Your task to perform on an android device: turn off location history Image 0: 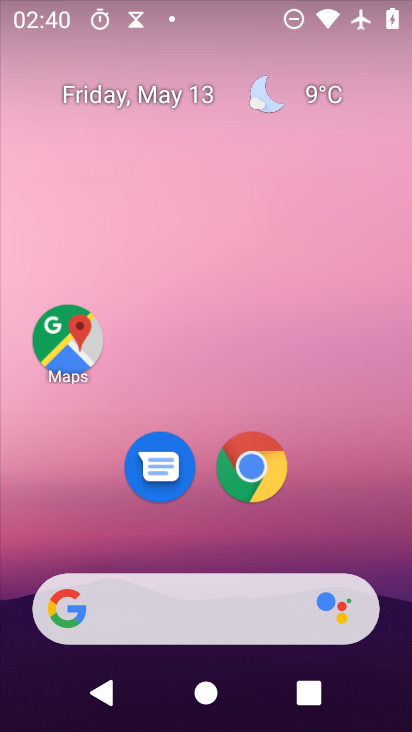
Step 0: press home button
Your task to perform on an android device: turn off location history Image 1: 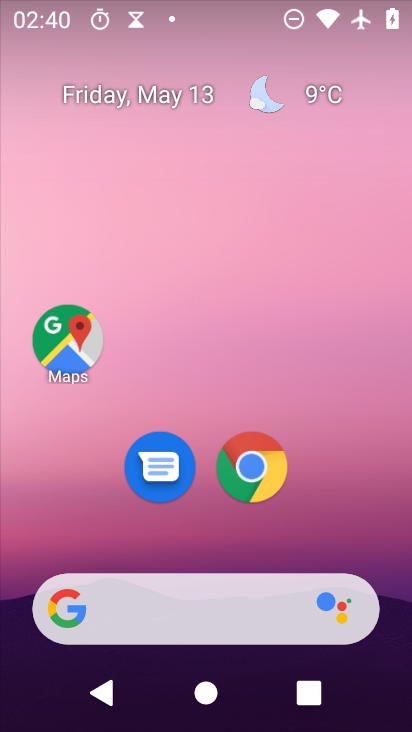
Step 1: drag from (266, 543) to (180, 21)
Your task to perform on an android device: turn off location history Image 2: 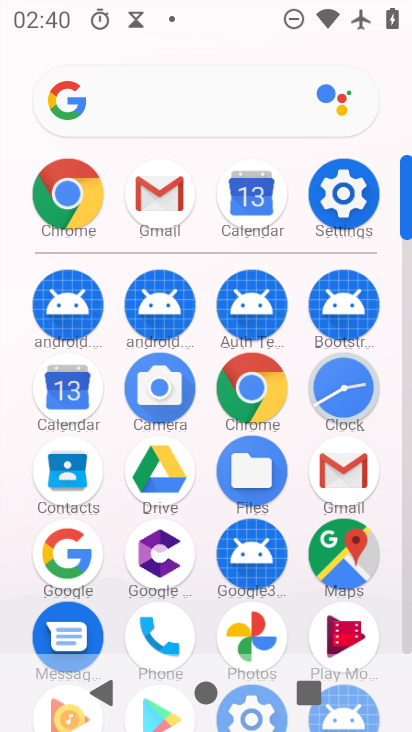
Step 2: click (343, 202)
Your task to perform on an android device: turn off location history Image 3: 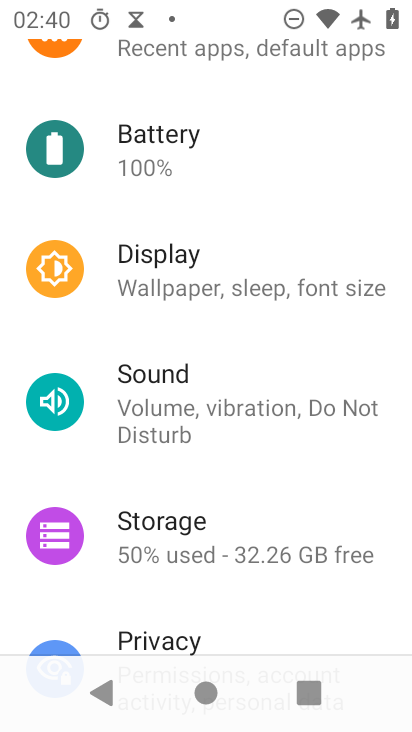
Step 3: click (243, 178)
Your task to perform on an android device: turn off location history Image 4: 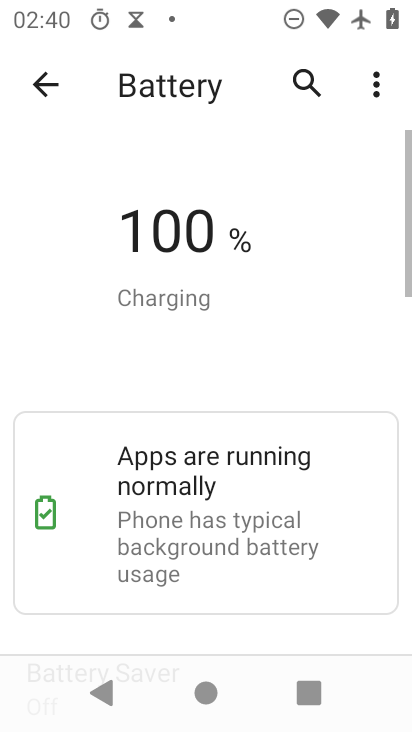
Step 4: drag from (205, 573) to (205, 235)
Your task to perform on an android device: turn off location history Image 5: 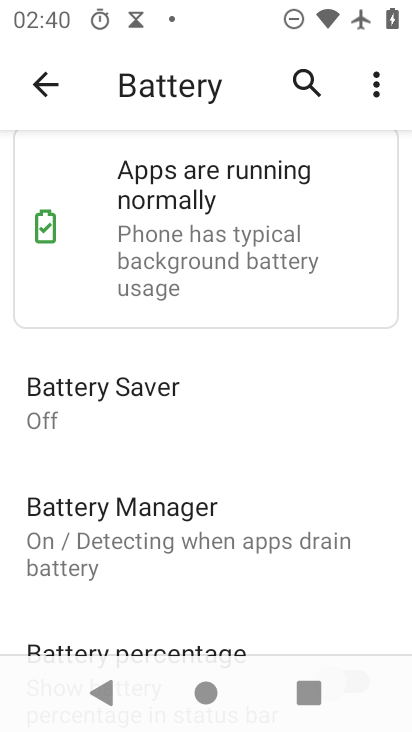
Step 5: click (37, 86)
Your task to perform on an android device: turn off location history Image 6: 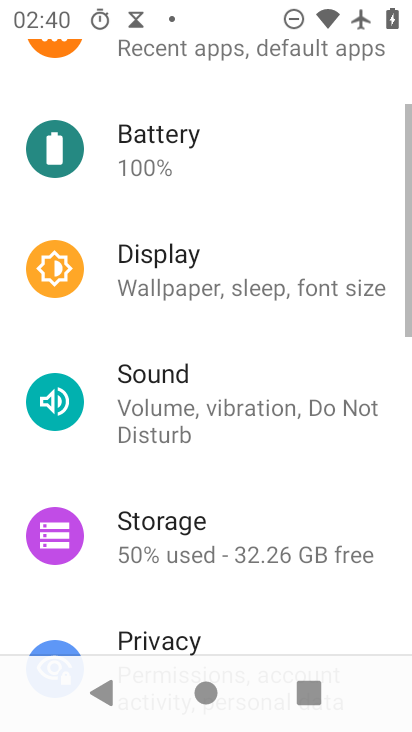
Step 6: drag from (215, 505) to (199, 180)
Your task to perform on an android device: turn off location history Image 7: 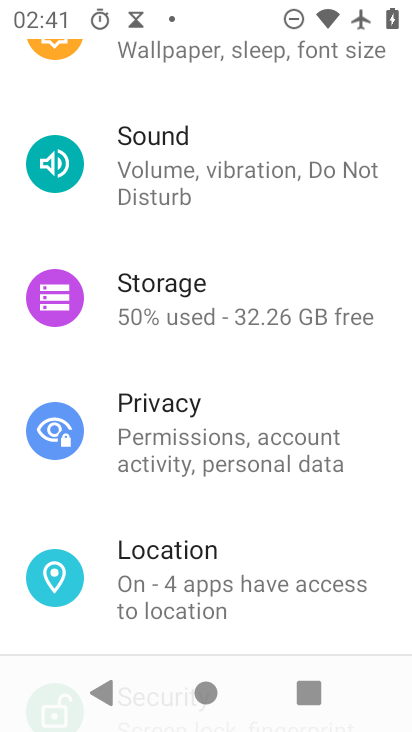
Step 7: click (237, 572)
Your task to perform on an android device: turn off location history Image 8: 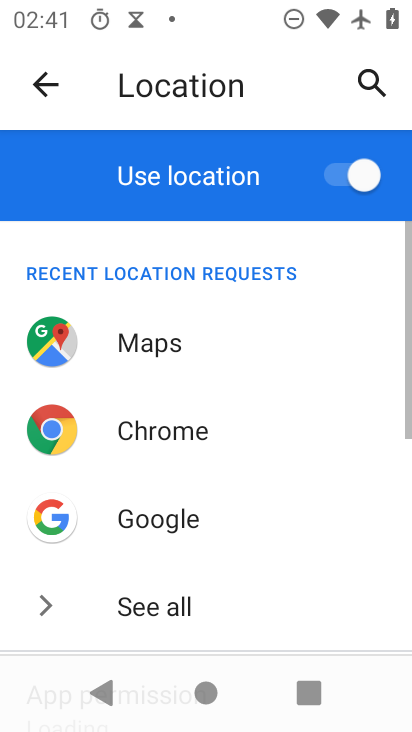
Step 8: drag from (259, 547) to (204, 172)
Your task to perform on an android device: turn off location history Image 9: 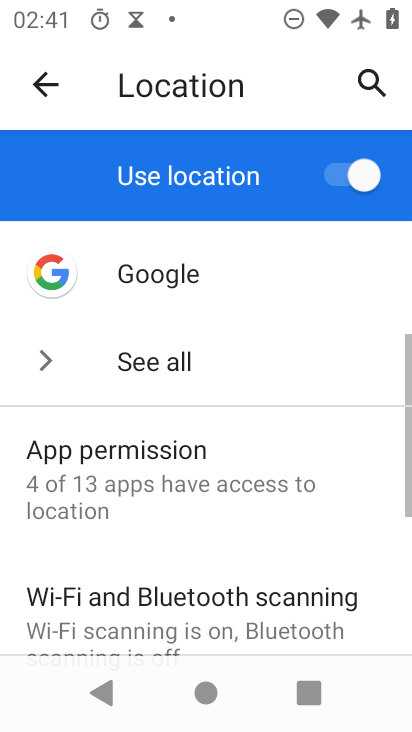
Step 9: drag from (237, 540) to (220, 228)
Your task to perform on an android device: turn off location history Image 10: 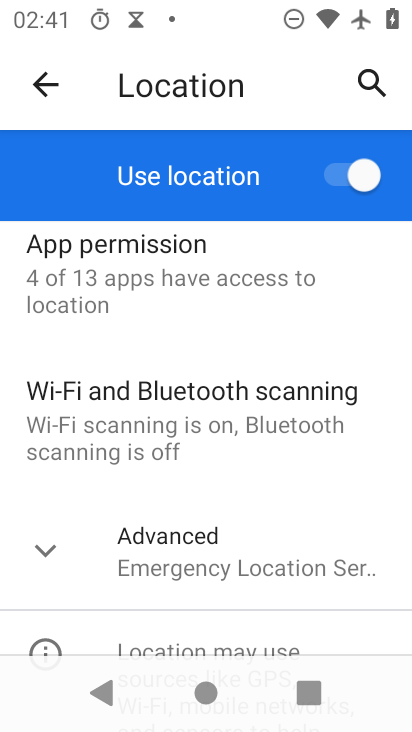
Step 10: drag from (216, 588) to (207, 280)
Your task to perform on an android device: turn off location history Image 11: 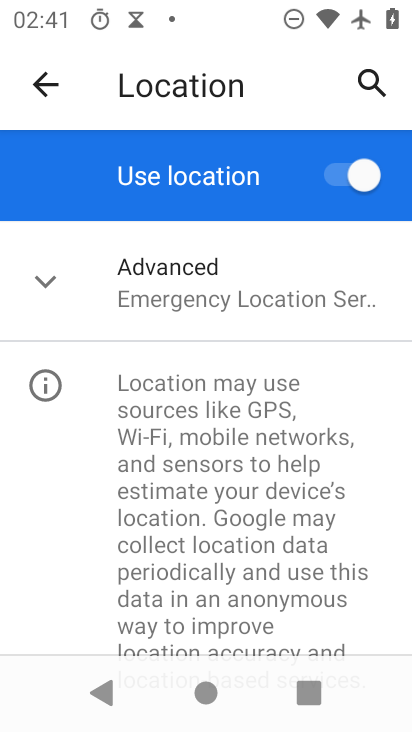
Step 11: drag from (219, 606) to (210, 331)
Your task to perform on an android device: turn off location history Image 12: 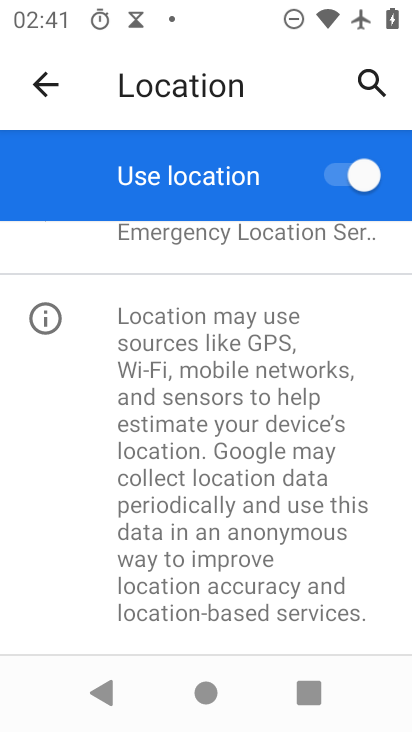
Step 12: drag from (177, 378) to (183, 591)
Your task to perform on an android device: turn off location history Image 13: 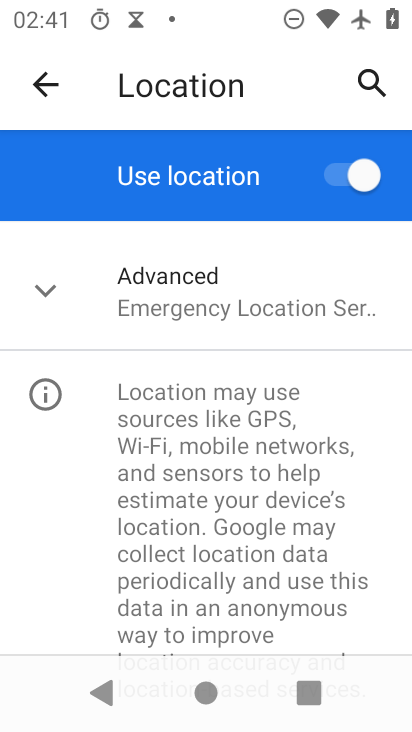
Step 13: click (173, 326)
Your task to perform on an android device: turn off location history Image 14: 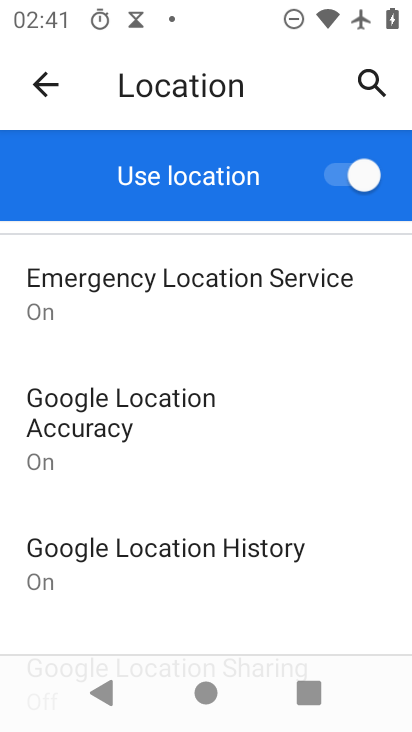
Step 14: click (227, 554)
Your task to perform on an android device: turn off location history Image 15: 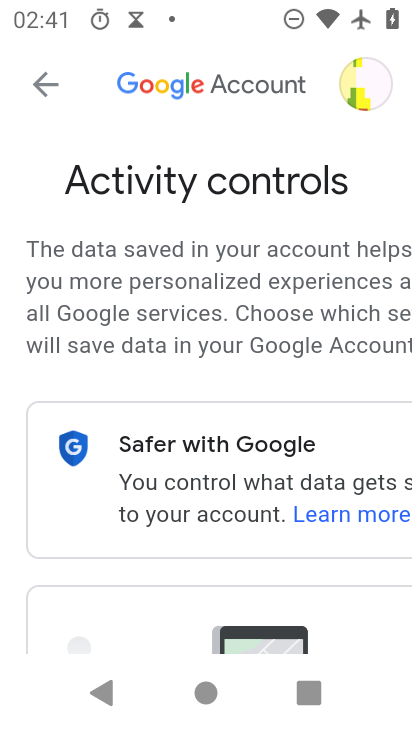
Step 15: drag from (174, 598) to (174, 149)
Your task to perform on an android device: turn off location history Image 16: 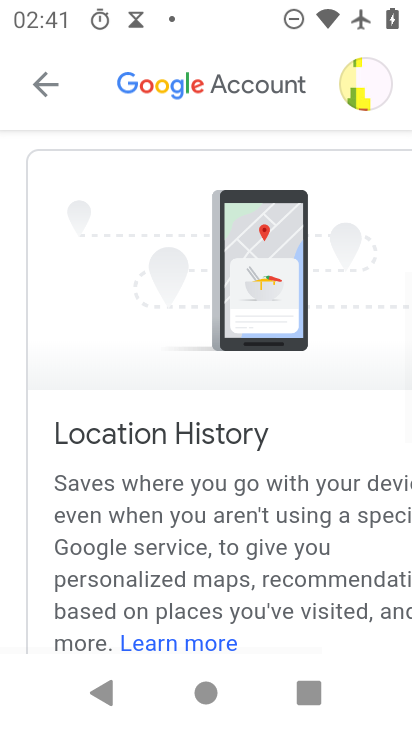
Step 16: drag from (159, 541) to (159, 177)
Your task to perform on an android device: turn off location history Image 17: 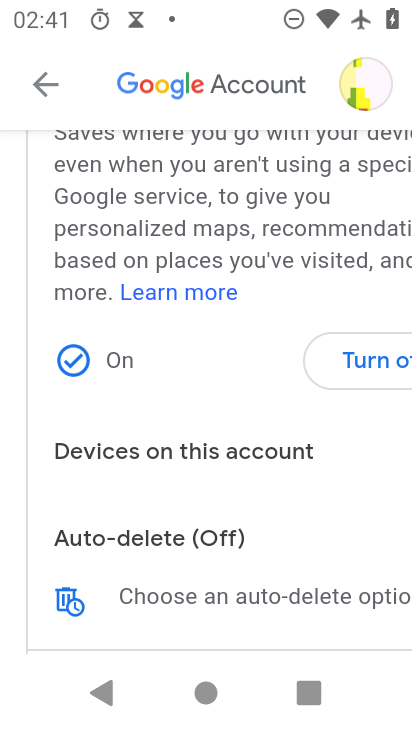
Step 17: click (360, 362)
Your task to perform on an android device: turn off location history Image 18: 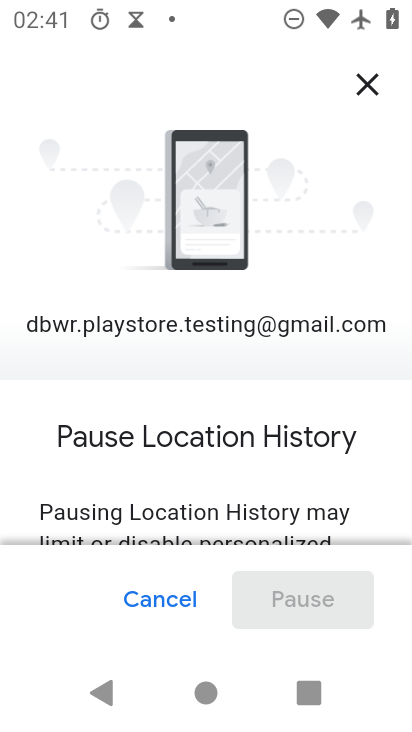
Step 18: drag from (298, 519) to (260, 89)
Your task to perform on an android device: turn off location history Image 19: 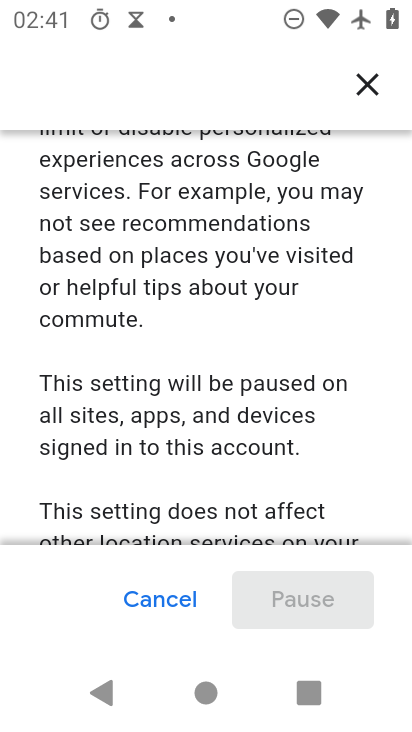
Step 19: drag from (266, 471) to (250, 130)
Your task to perform on an android device: turn off location history Image 20: 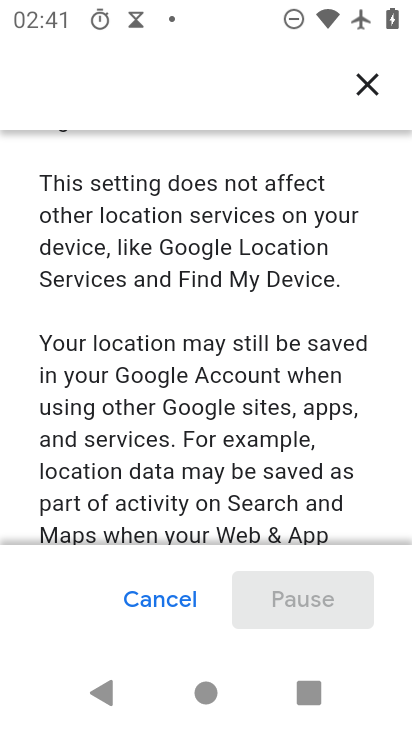
Step 20: drag from (297, 495) to (241, 91)
Your task to perform on an android device: turn off location history Image 21: 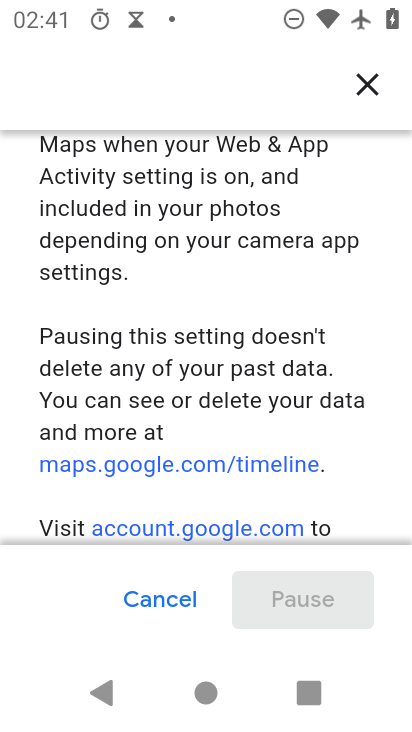
Step 21: drag from (252, 368) to (235, 151)
Your task to perform on an android device: turn off location history Image 22: 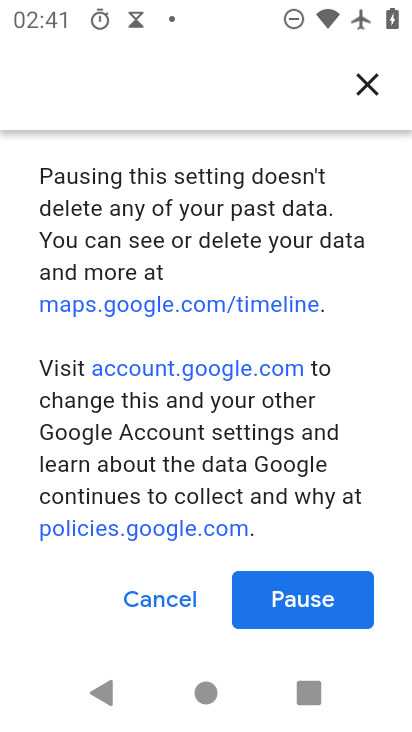
Step 22: click (295, 591)
Your task to perform on an android device: turn off location history Image 23: 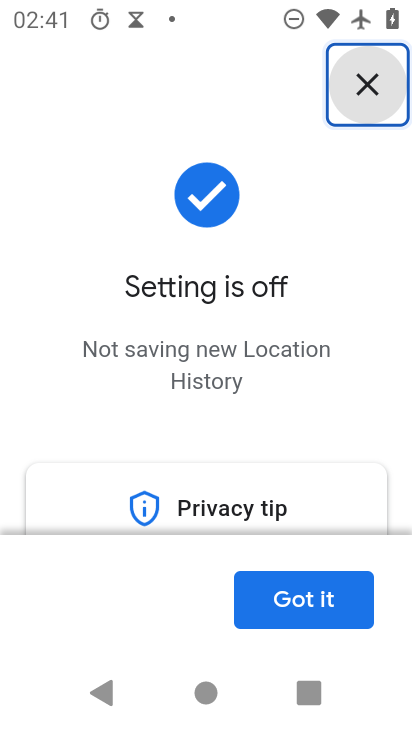
Step 23: click (317, 599)
Your task to perform on an android device: turn off location history Image 24: 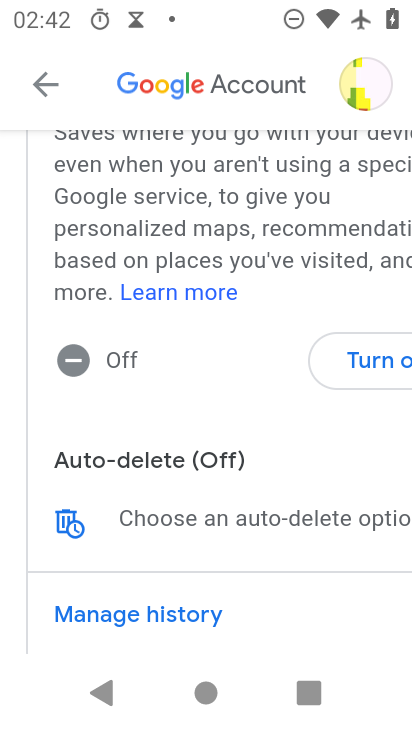
Step 24: task complete